Your task to perform on an android device: Show me the alarms in the clock app Image 0: 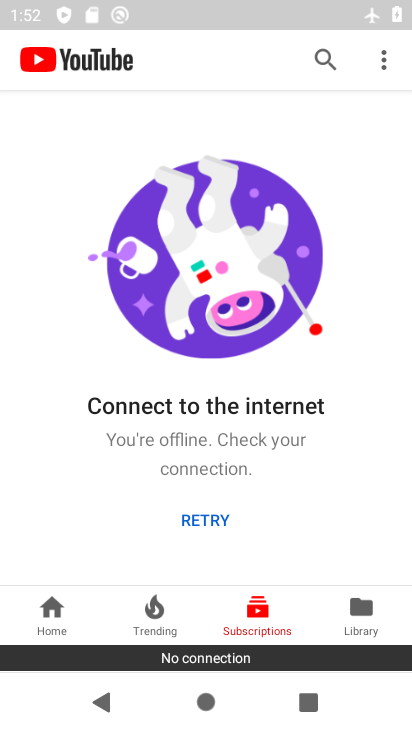
Step 0: press home button
Your task to perform on an android device: Show me the alarms in the clock app Image 1: 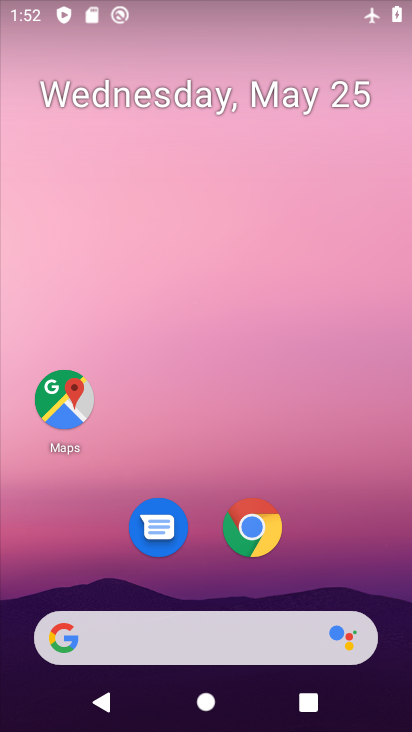
Step 1: drag from (153, 481) to (206, 146)
Your task to perform on an android device: Show me the alarms in the clock app Image 2: 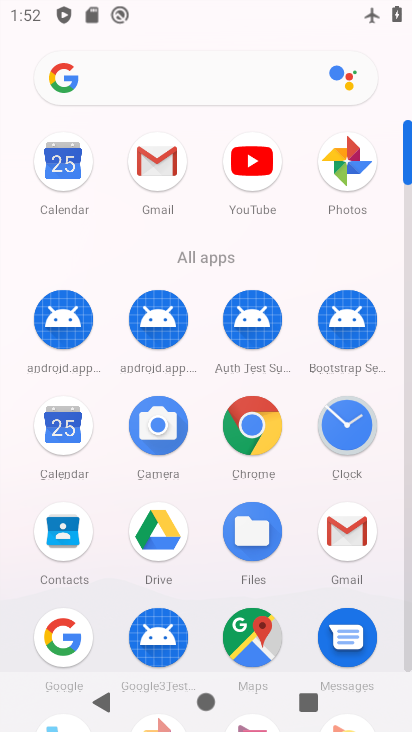
Step 2: click (344, 424)
Your task to perform on an android device: Show me the alarms in the clock app Image 3: 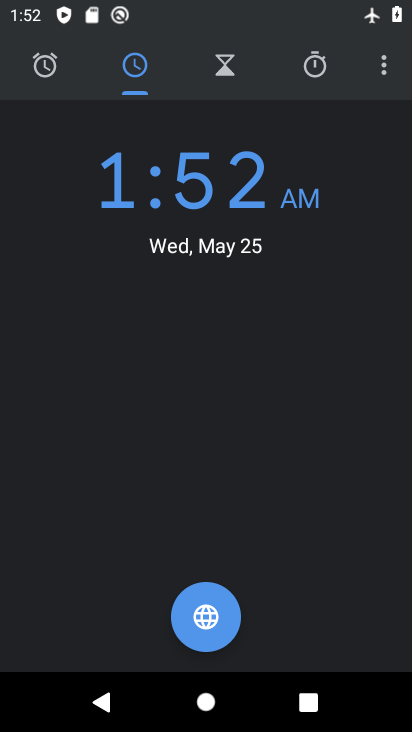
Step 3: click (46, 62)
Your task to perform on an android device: Show me the alarms in the clock app Image 4: 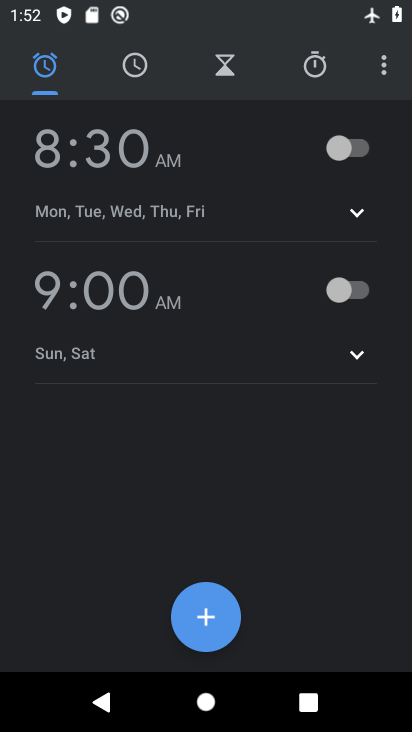
Step 4: task complete